Your task to perform on an android device: search for starred emails in the gmail app Image 0: 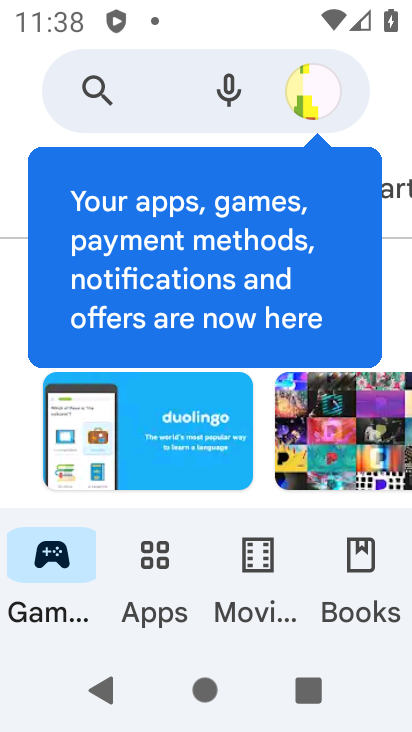
Step 0: press home button
Your task to perform on an android device: search for starred emails in the gmail app Image 1: 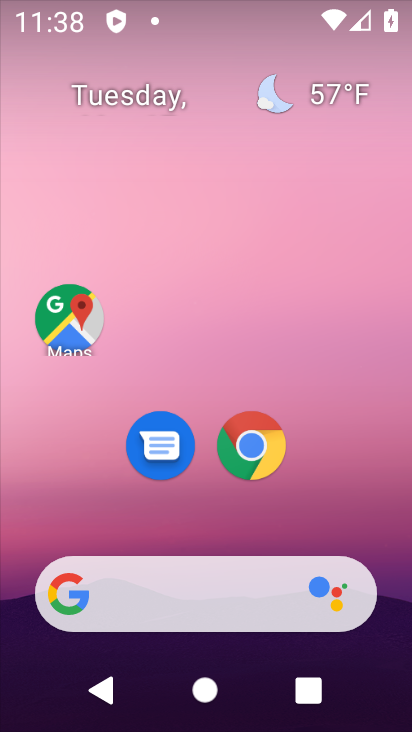
Step 1: drag from (381, 488) to (378, 196)
Your task to perform on an android device: search for starred emails in the gmail app Image 2: 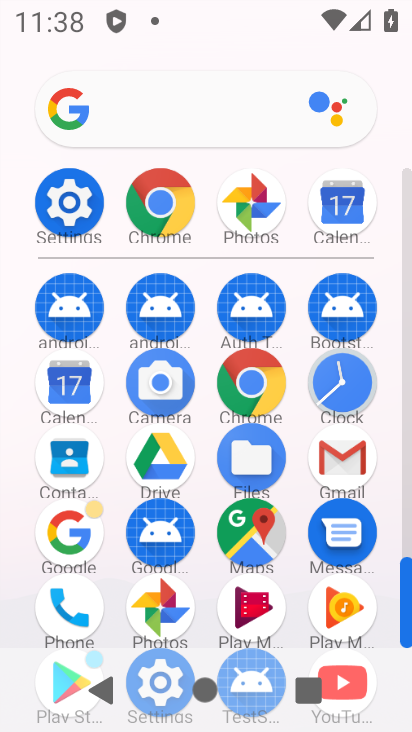
Step 2: click (357, 466)
Your task to perform on an android device: search for starred emails in the gmail app Image 3: 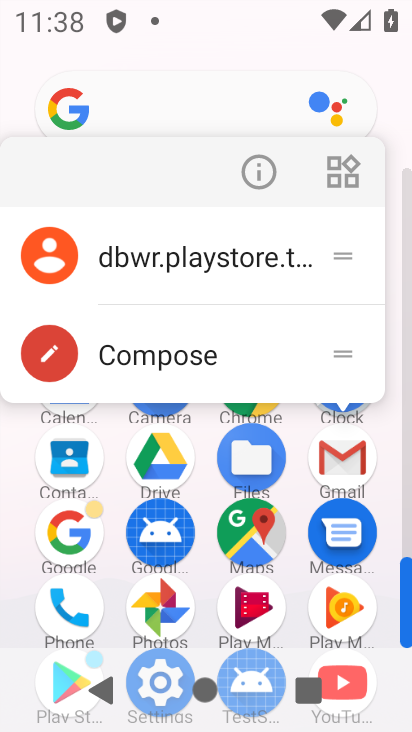
Step 3: click (355, 456)
Your task to perform on an android device: search for starred emails in the gmail app Image 4: 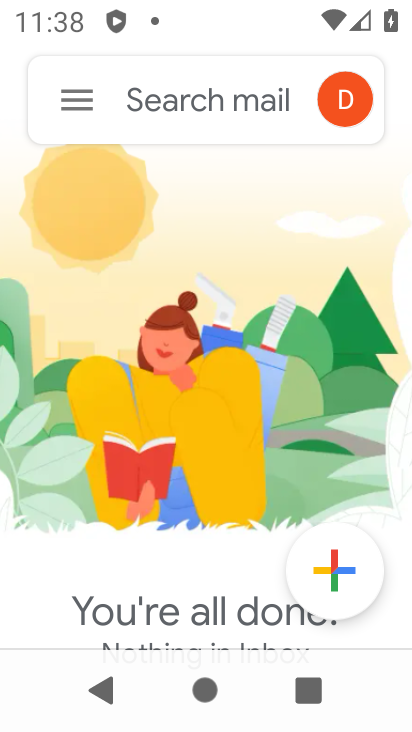
Step 4: click (84, 112)
Your task to perform on an android device: search for starred emails in the gmail app Image 5: 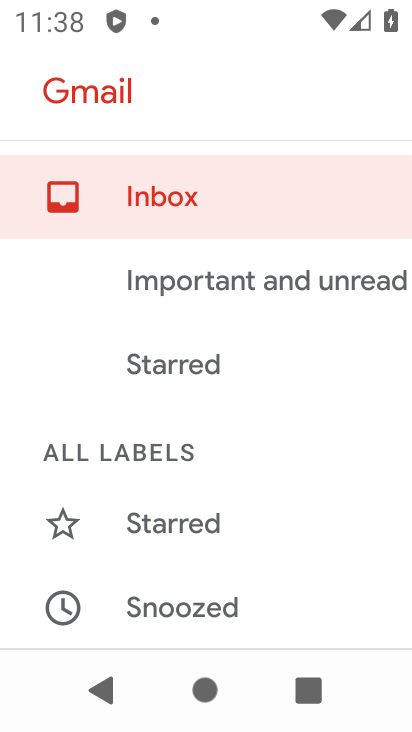
Step 5: drag from (291, 560) to (279, 432)
Your task to perform on an android device: search for starred emails in the gmail app Image 6: 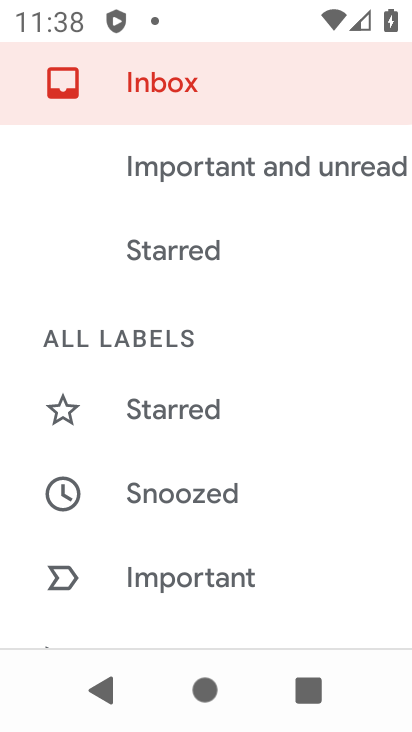
Step 6: drag from (322, 577) to (320, 445)
Your task to perform on an android device: search for starred emails in the gmail app Image 7: 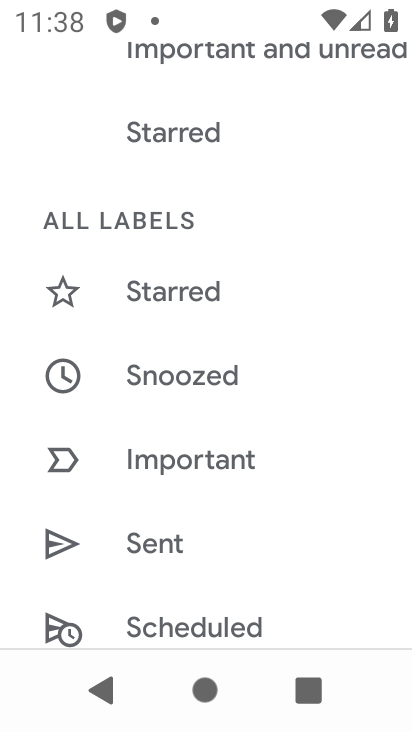
Step 7: drag from (315, 548) to (325, 408)
Your task to perform on an android device: search for starred emails in the gmail app Image 8: 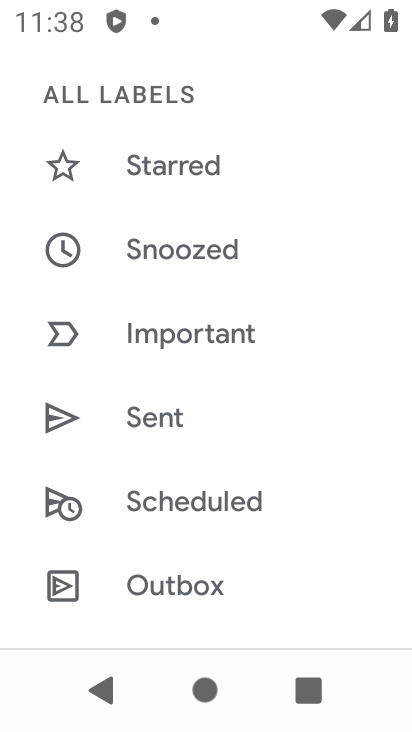
Step 8: drag from (335, 577) to (337, 465)
Your task to perform on an android device: search for starred emails in the gmail app Image 9: 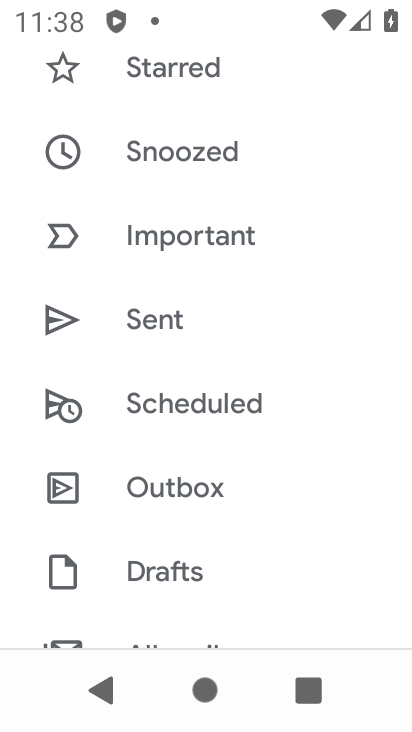
Step 9: drag from (334, 582) to (335, 479)
Your task to perform on an android device: search for starred emails in the gmail app Image 10: 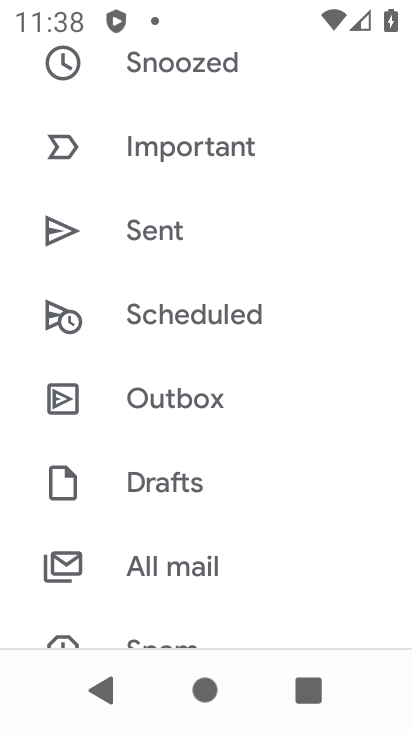
Step 10: drag from (338, 582) to (328, 485)
Your task to perform on an android device: search for starred emails in the gmail app Image 11: 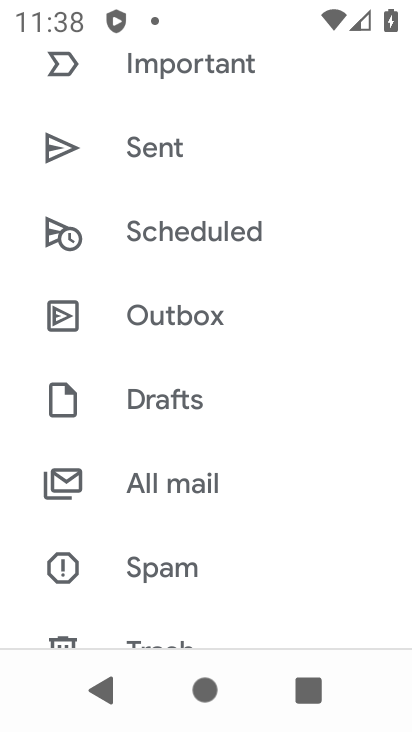
Step 11: drag from (311, 594) to (305, 472)
Your task to perform on an android device: search for starred emails in the gmail app Image 12: 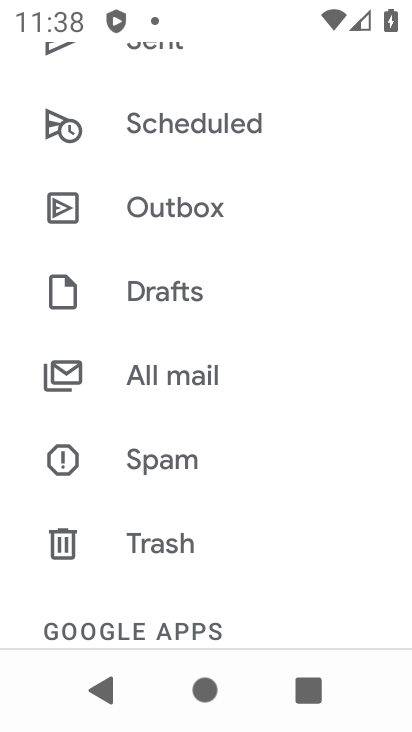
Step 12: drag from (308, 604) to (317, 440)
Your task to perform on an android device: search for starred emails in the gmail app Image 13: 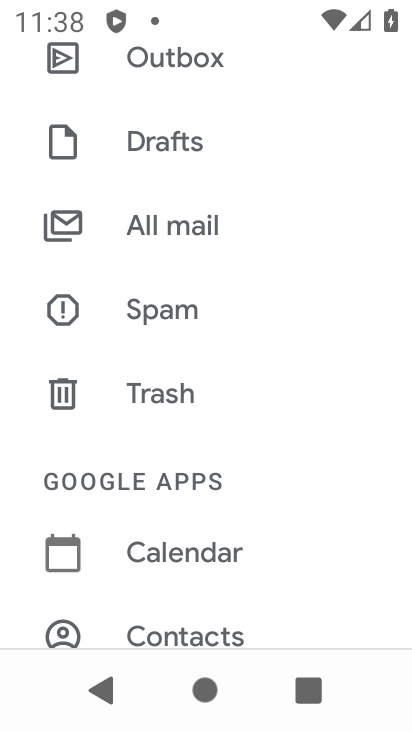
Step 13: drag from (316, 595) to (313, 451)
Your task to perform on an android device: search for starred emails in the gmail app Image 14: 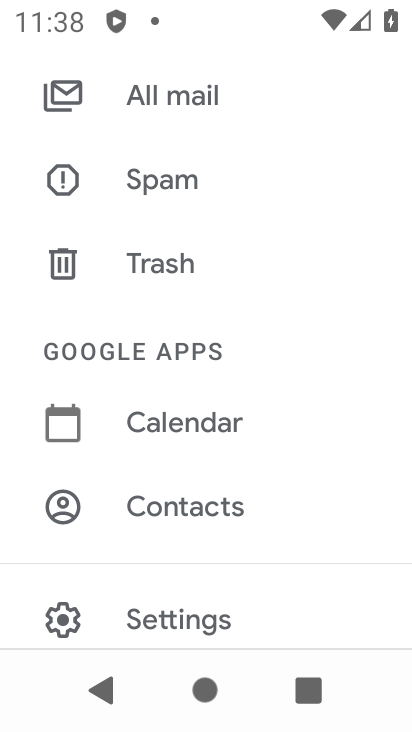
Step 14: drag from (317, 320) to (301, 495)
Your task to perform on an android device: search for starred emails in the gmail app Image 15: 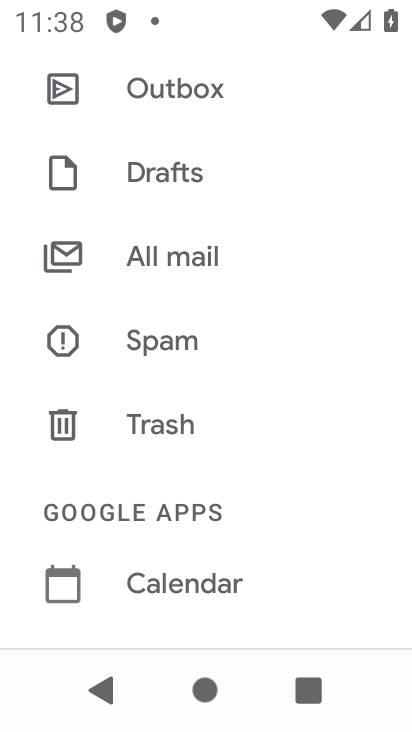
Step 15: drag from (307, 339) to (302, 429)
Your task to perform on an android device: search for starred emails in the gmail app Image 16: 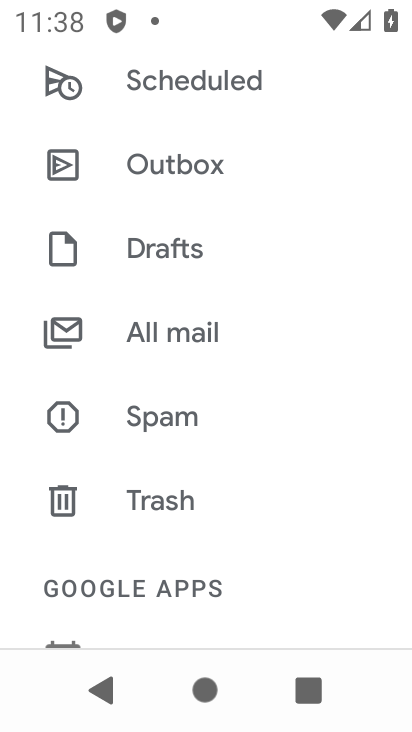
Step 16: drag from (313, 304) to (303, 393)
Your task to perform on an android device: search for starred emails in the gmail app Image 17: 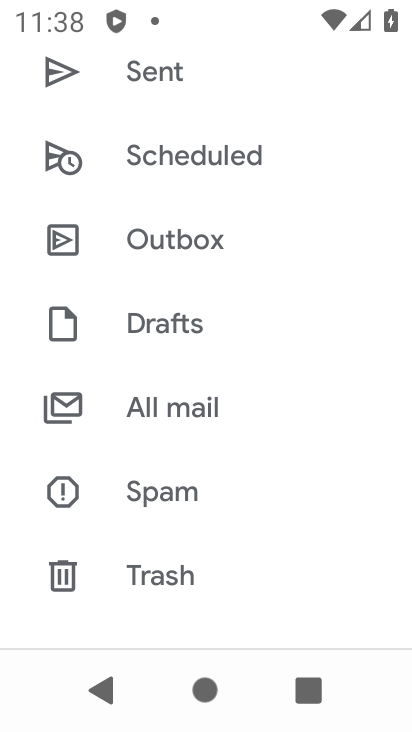
Step 17: drag from (316, 313) to (318, 375)
Your task to perform on an android device: search for starred emails in the gmail app Image 18: 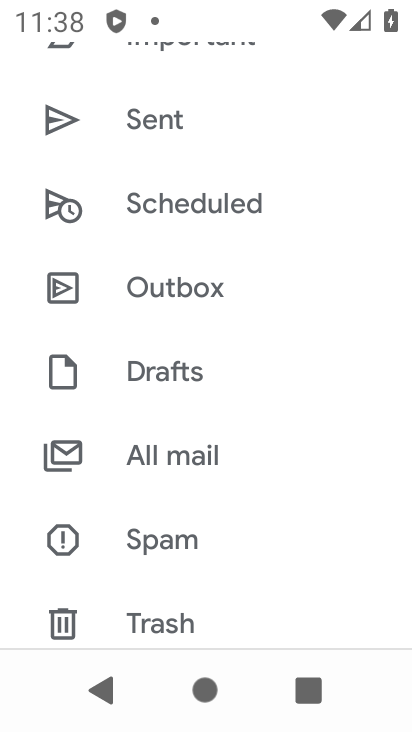
Step 18: drag from (323, 338) to (313, 417)
Your task to perform on an android device: search for starred emails in the gmail app Image 19: 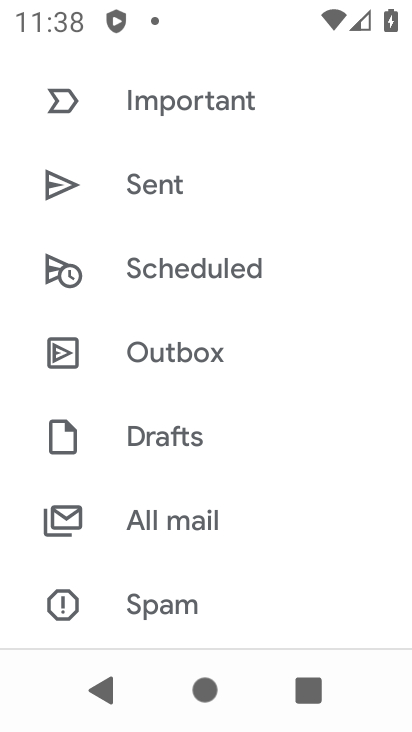
Step 19: drag from (322, 355) to (316, 403)
Your task to perform on an android device: search for starred emails in the gmail app Image 20: 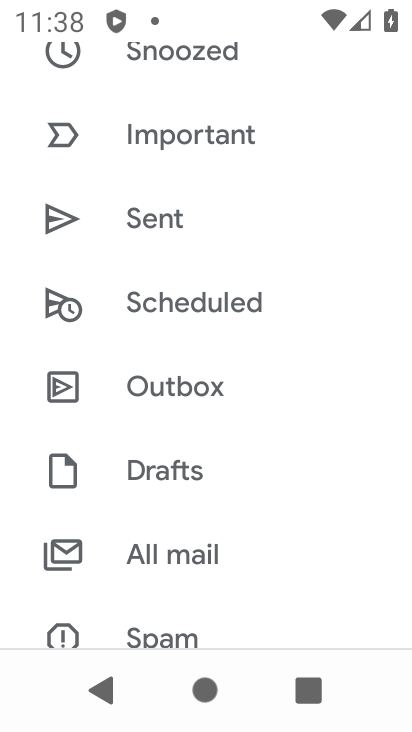
Step 20: drag from (319, 350) to (310, 415)
Your task to perform on an android device: search for starred emails in the gmail app Image 21: 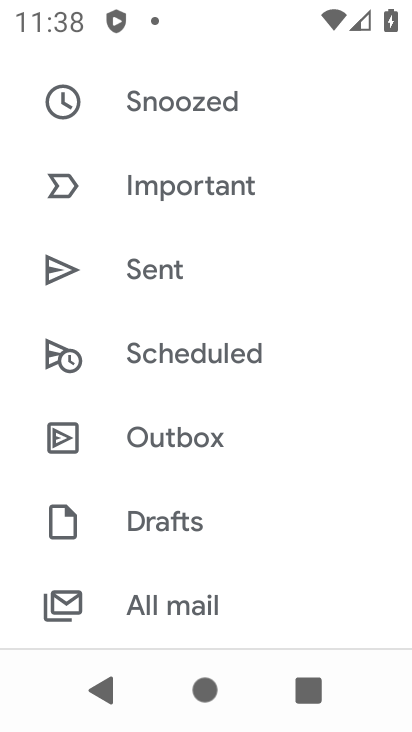
Step 21: drag from (319, 358) to (311, 431)
Your task to perform on an android device: search for starred emails in the gmail app Image 22: 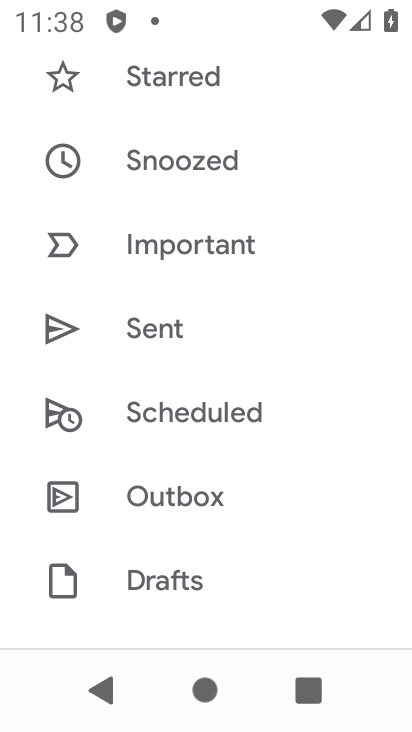
Step 22: drag from (316, 322) to (311, 398)
Your task to perform on an android device: search for starred emails in the gmail app Image 23: 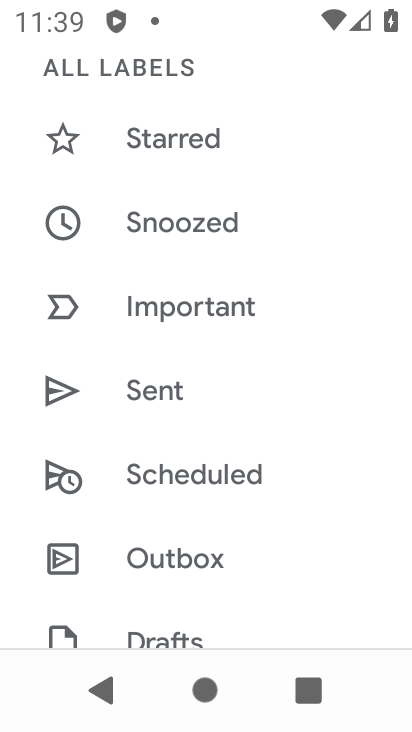
Step 23: drag from (314, 360) to (297, 449)
Your task to perform on an android device: search for starred emails in the gmail app Image 24: 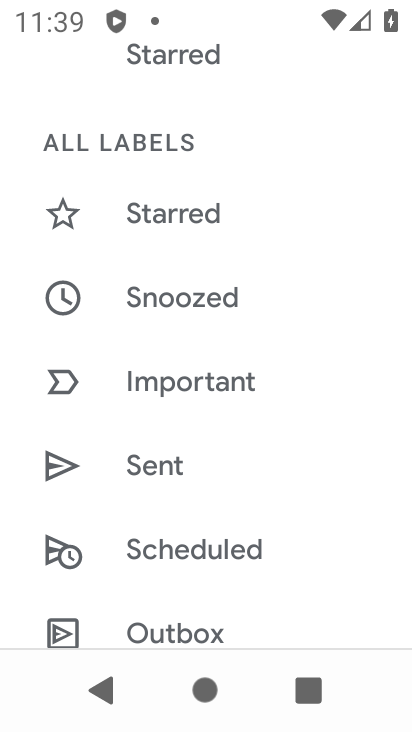
Step 24: drag from (303, 330) to (305, 426)
Your task to perform on an android device: search for starred emails in the gmail app Image 25: 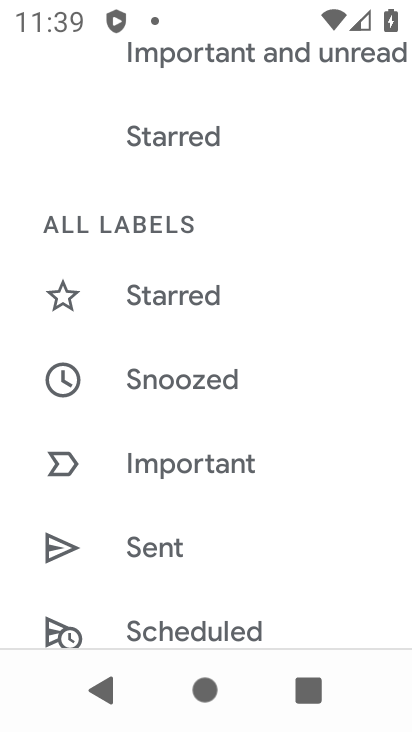
Step 25: drag from (320, 351) to (322, 418)
Your task to perform on an android device: search for starred emails in the gmail app Image 26: 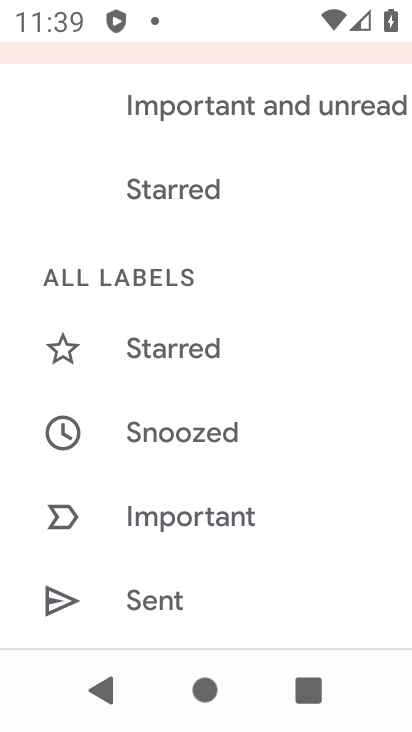
Step 26: drag from (325, 346) to (322, 440)
Your task to perform on an android device: search for starred emails in the gmail app Image 27: 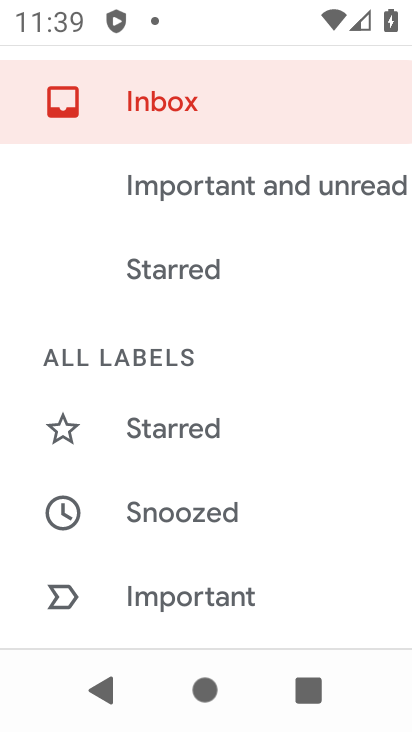
Step 27: click (228, 434)
Your task to perform on an android device: search for starred emails in the gmail app Image 28: 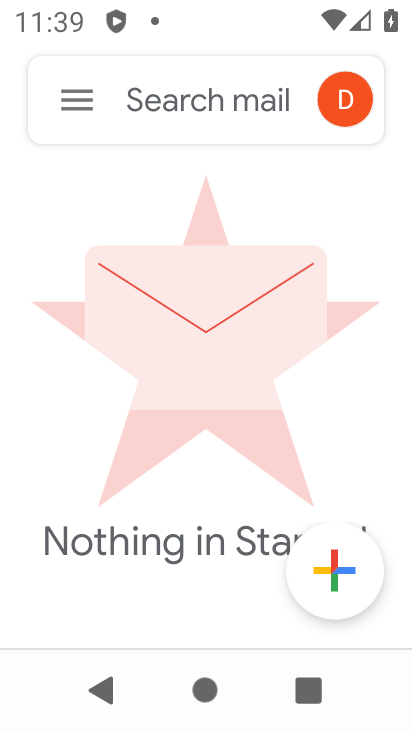
Step 28: task complete